Your task to perform on an android device: turn off location history Image 0: 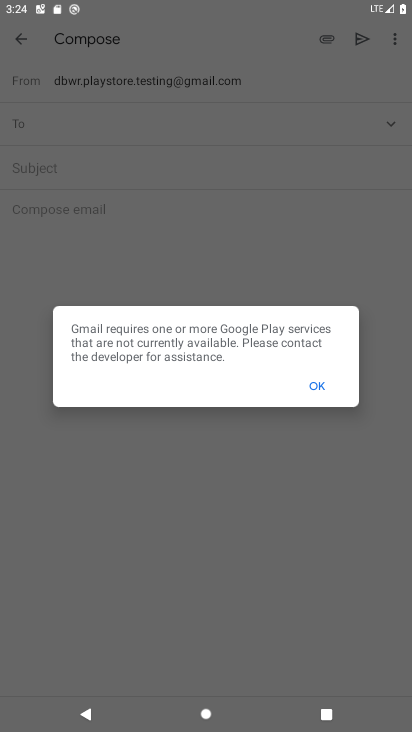
Step 0: press home button
Your task to perform on an android device: turn off location history Image 1: 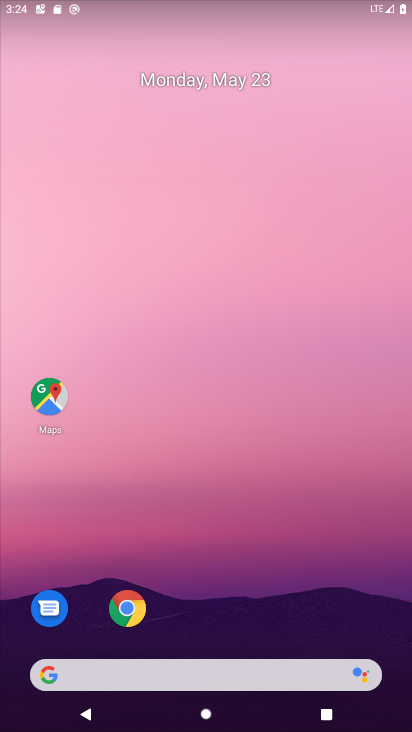
Step 1: drag from (267, 636) to (204, 304)
Your task to perform on an android device: turn off location history Image 2: 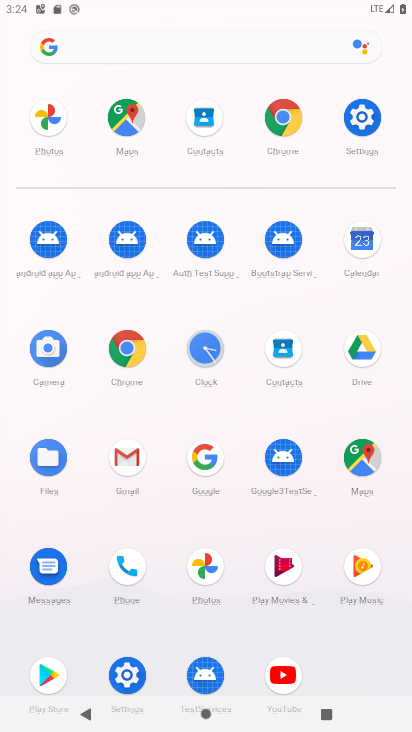
Step 2: click (129, 114)
Your task to perform on an android device: turn off location history Image 3: 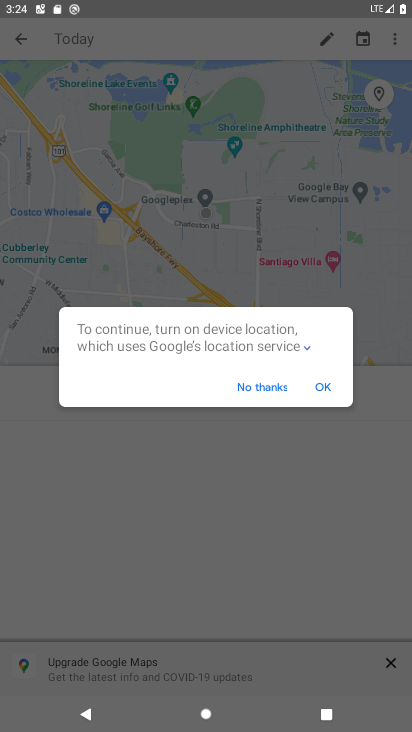
Step 3: click (263, 386)
Your task to perform on an android device: turn off location history Image 4: 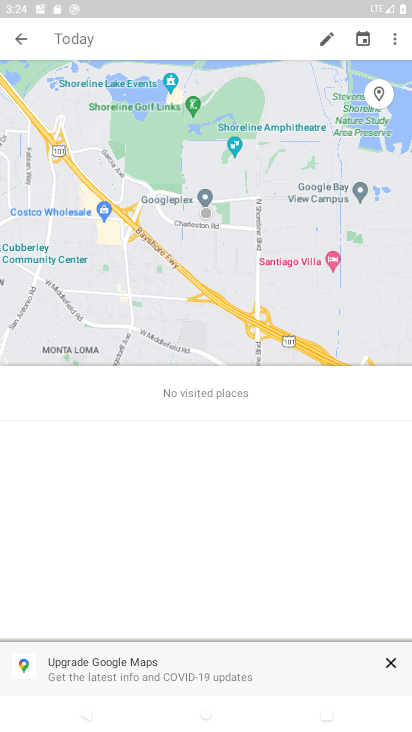
Step 4: click (392, 43)
Your task to perform on an android device: turn off location history Image 5: 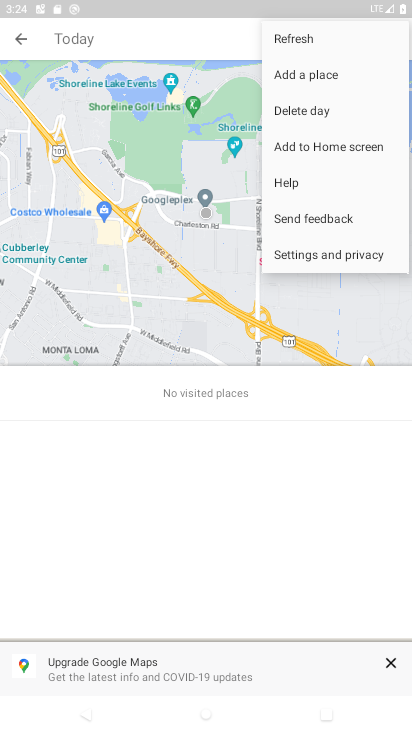
Step 5: click (361, 253)
Your task to perform on an android device: turn off location history Image 6: 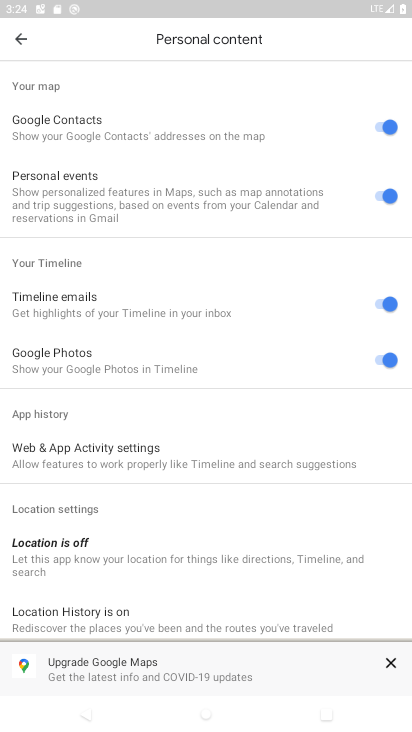
Step 6: drag from (224, 582) to (197, 350)
Your task to perform on an android device: turn off location history Image 7: 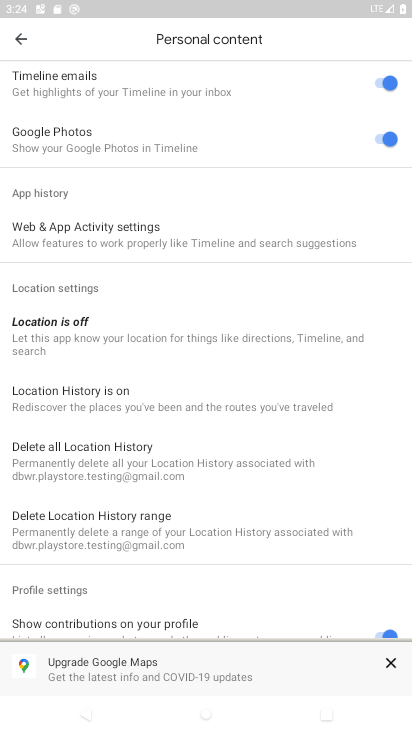
Step 7: click (195, 392)
Your task to perform on an android device: turn off location history Image 8: 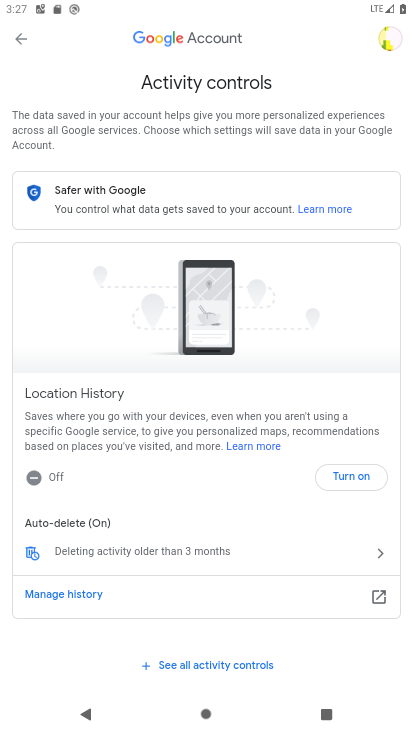
Step 8: task complete